Your task to perform on an android device: turn notification dots off Image 0: 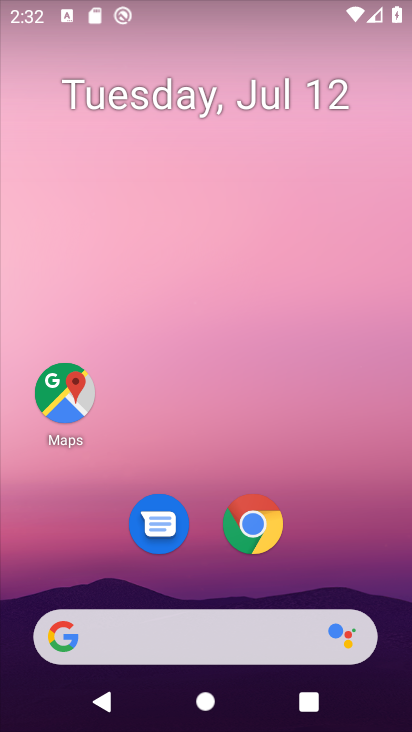
Step 0: drag from (298, 557) to (324, 32)
Your task to perform on an android device: turn notification dots off Image 1: 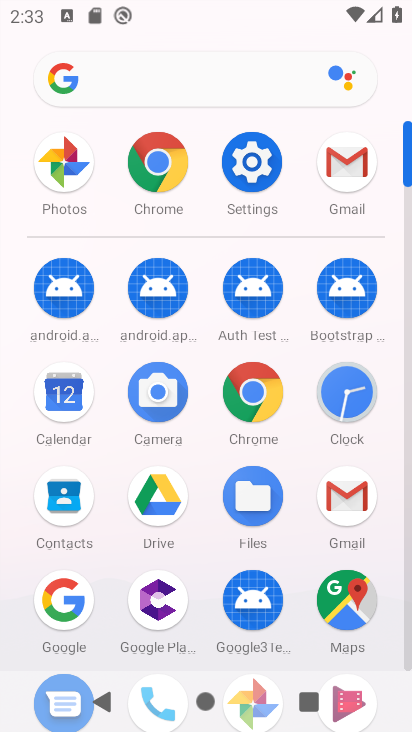
Step 1: click (259, 166)
Your task to perform on an android device: turn notification dots off Image 2: 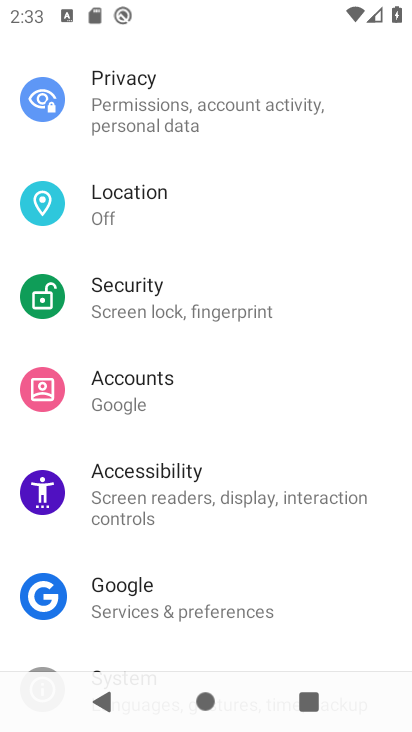
Step 2: drag from (250, 534) to (297, 159)
Your task to perform on an android device: turn notification dots off Image 3: 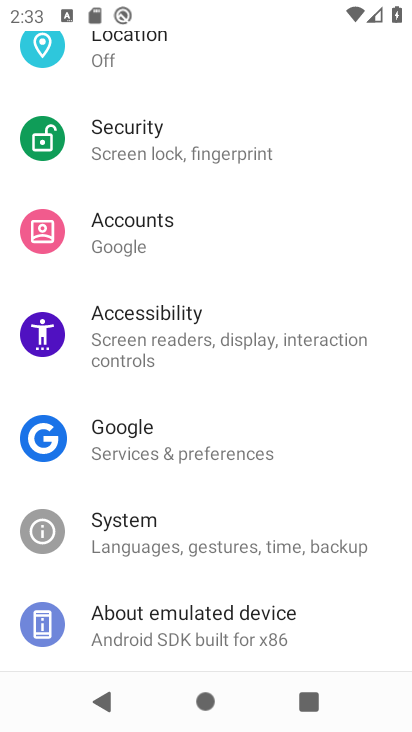
Step 3: drag from (244, 228) to (217, 638)
Your task to perform on an android device: turn notification dots off Image 4: 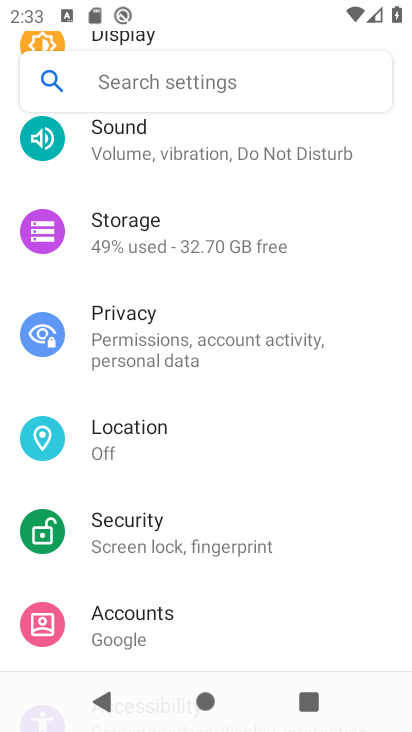
Step 4: drag from (218, 204) to (152, 609)
Your task to perform on an android device: turn notification dots off Image 5: 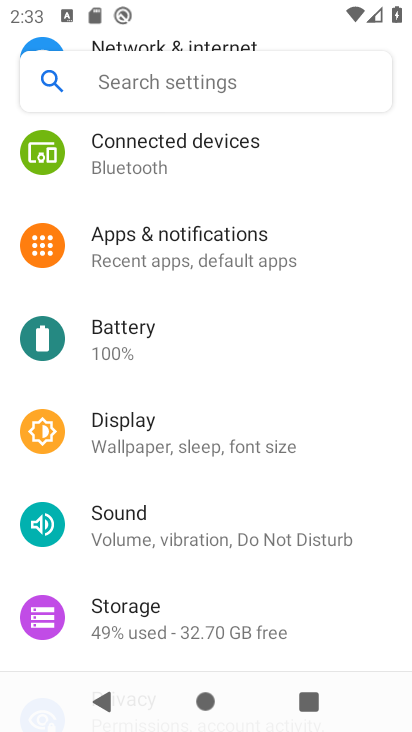
Step 5: click (244, 241)
Your task to perform on an android device: turn notification dots off Image 6: 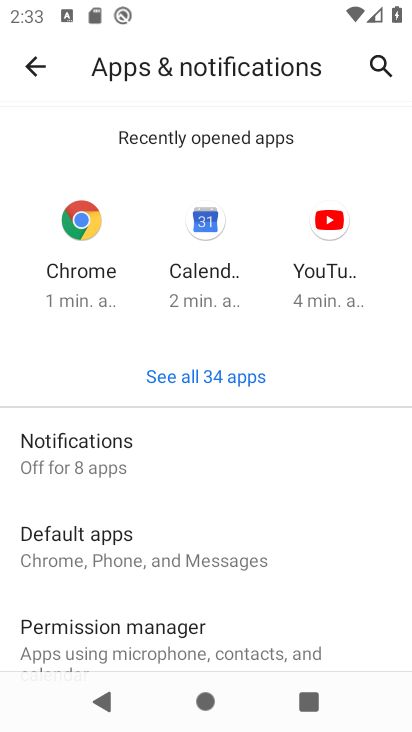
Step 6: click (115, 460)
Your task to perform on an android device: turn notification dots off Image 7: 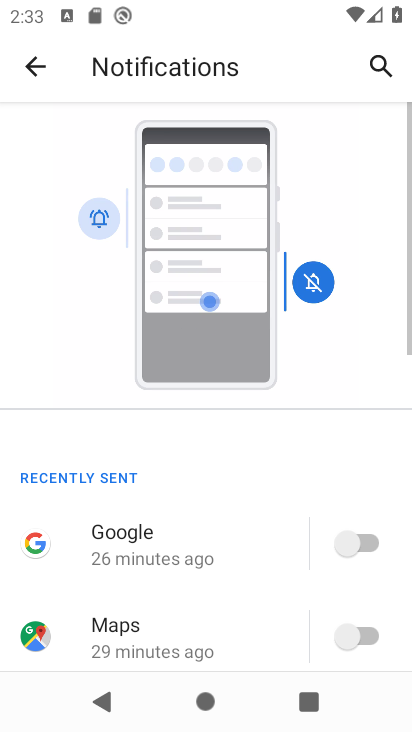
Step 7: drag from (217, 518) to (286, 196)
Your task to perform on an android device: turn notification dots off Image 8: 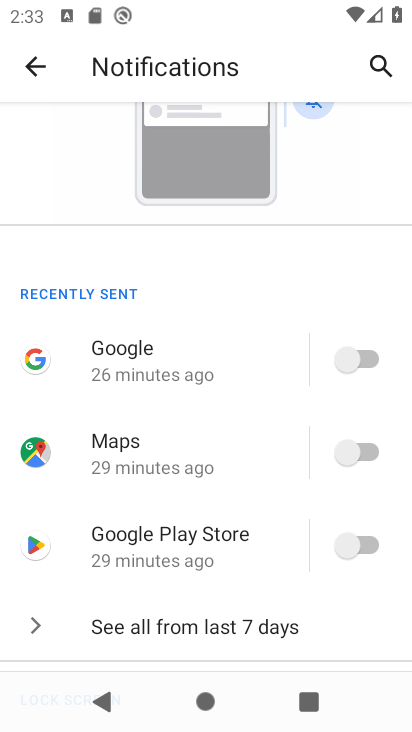
Step 8: drag from (229, 540) to (214, 196)
Your task to perform on an android device: turn notification dots off Image 9: 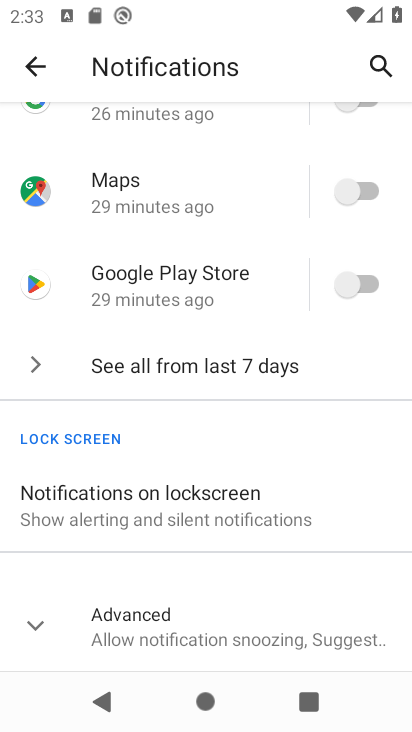
Step 9: click (37, 622)
Your task to perform on an android device: turn notification dots off Image 10: 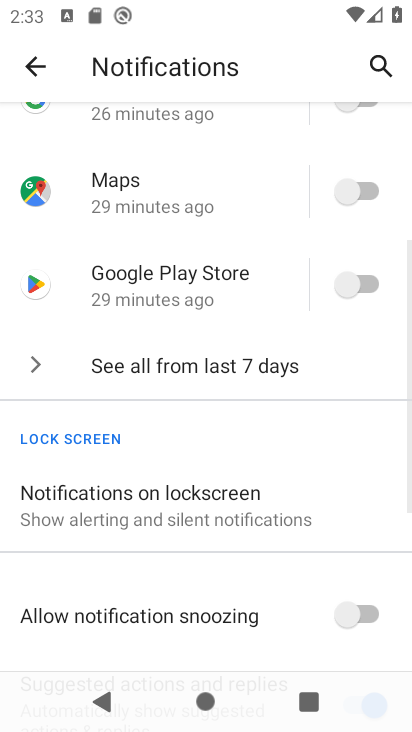
Step 10: task complete